Your task to perform on an android device: Check the weather Image 0: 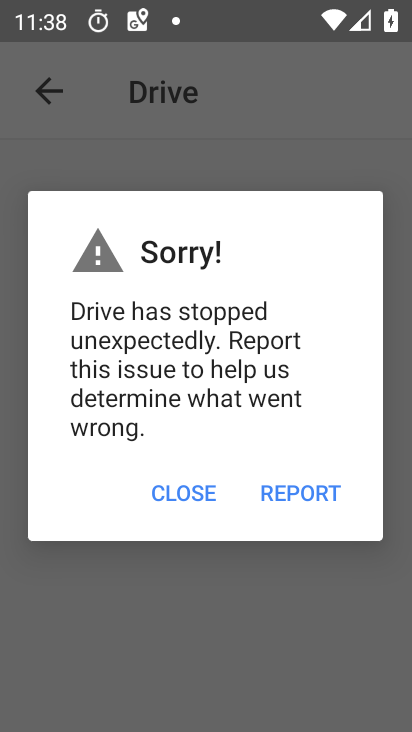
Step 0: press home button
Your task to perform on an android device: Check the weather Image 1: 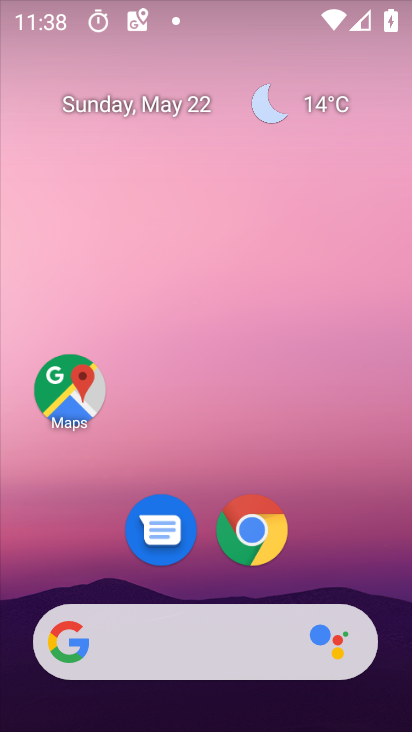
Step 1: click (317, 88)
Your task to perform on an android device: Check the weather Image 2: 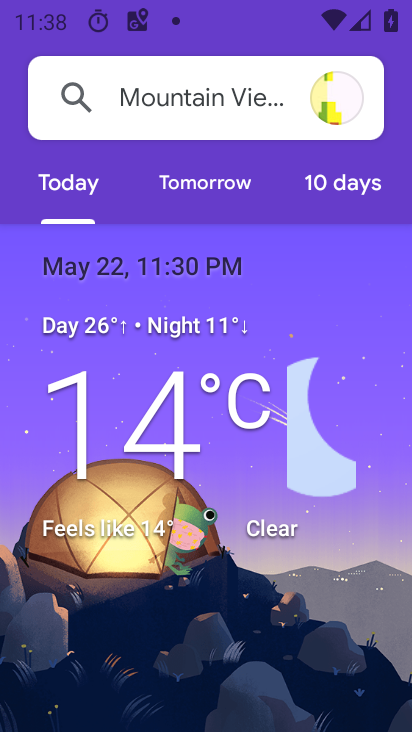
Step 2: task complete